Your task to perform on an android device: Go to wifi settings Image 0: 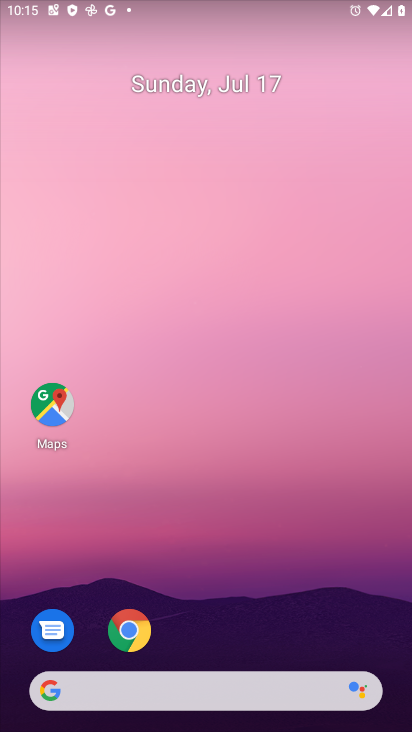
Step 0: click (226, 54)
Your task to perform on an android device: Go to wifi settings Image 1: 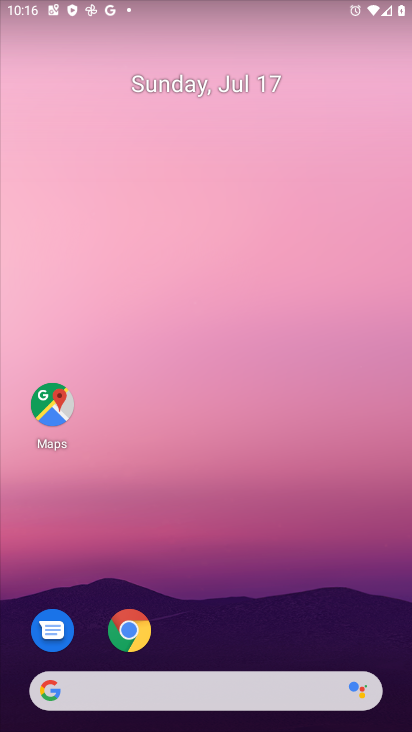
Step 1: drag from (204, 595) to (203, 104)
Your task to perform on an android device: Go to wifi settings Image 2: 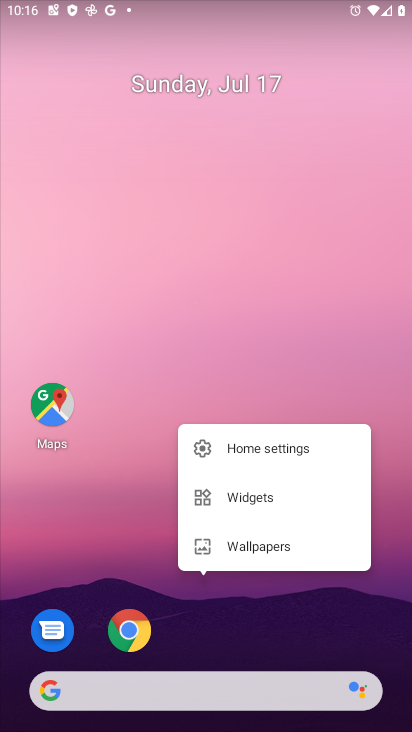
Step 2: click (163, 621)
Your task to perform on an android device: Go to wifi settings Image 3: 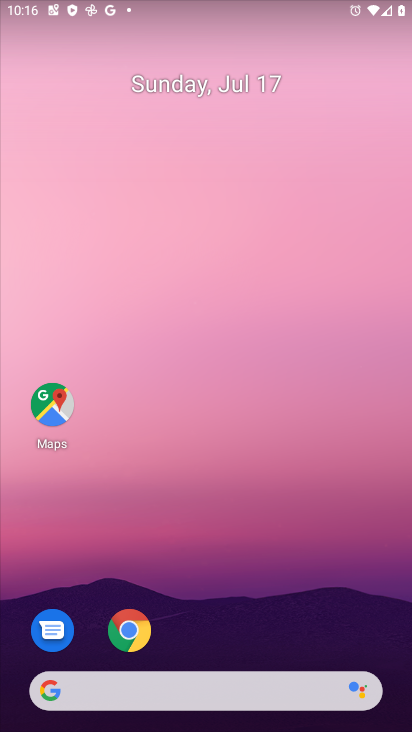
Step 3: drag from (160, 617) to (176, 176)
Your task to perform on an android device: Go to wifi settings Image 4: 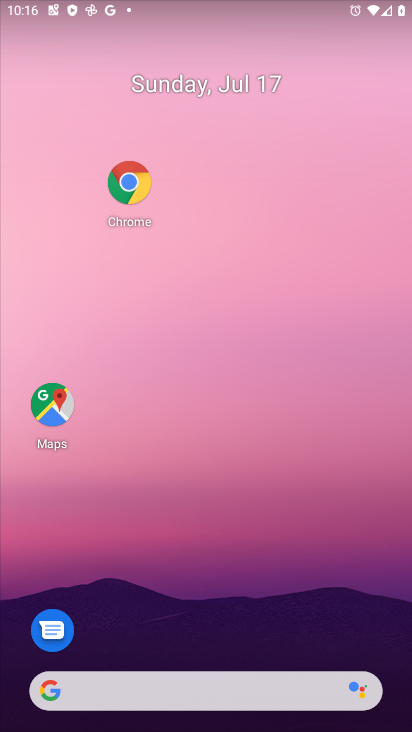
Step 4: click (190, 23)
Your task to perform on an android device: Go to wifi settings Image 5: 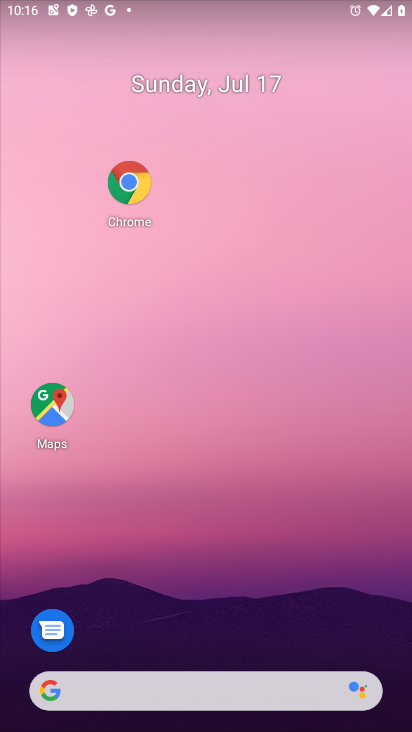
Step 5: click (233, 90)
Your task to perform on an android device: Go to wifi settings Image 6: 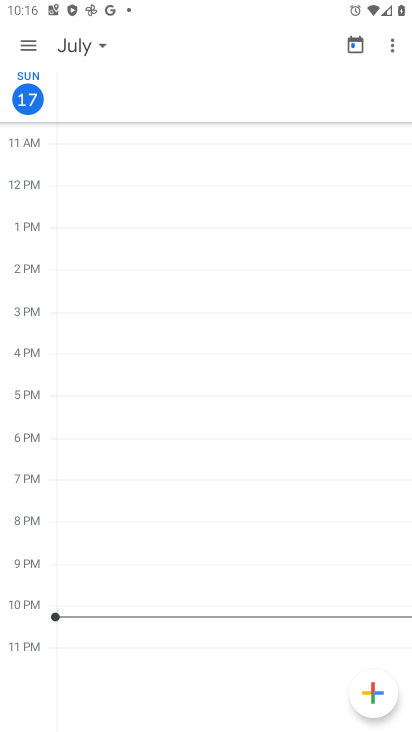
Step 6: press home button
Your task to perform on an android device: Go to wifi settings Image 7: 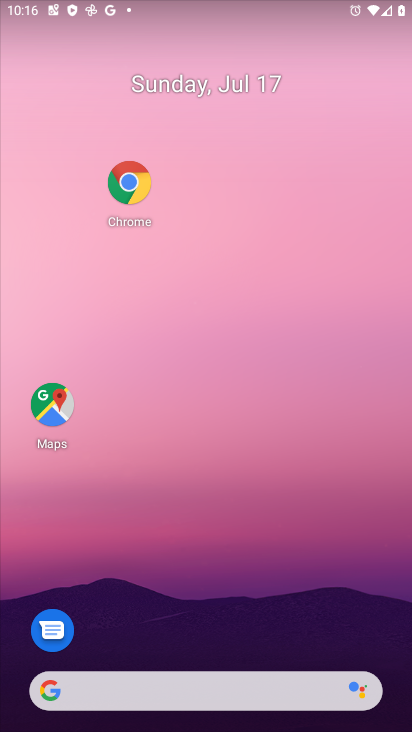
Step 7: drag from (180, 426) to (188, 178)
Your task to perform on an android device: Go to wifi settings Image 8: 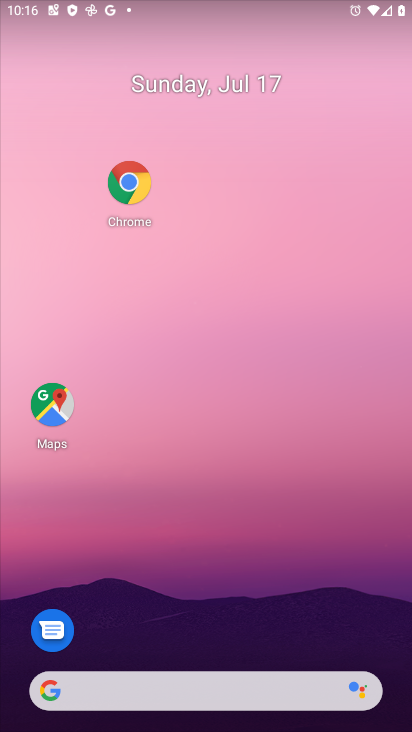
Step 8: drag from (173, 479) to (193, 271)
Your task to perform on an android device: Go to wifi settings Image 9: 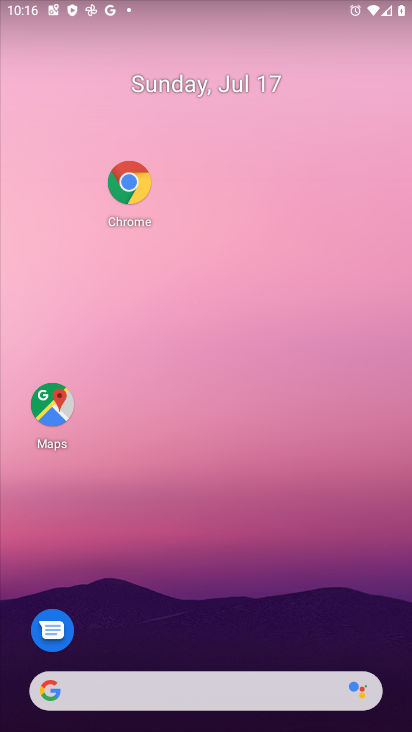
Step 9: drag from (186, 613) to (224, 127)
Your task to perform on an android device: Go to wifi settings Image 10: 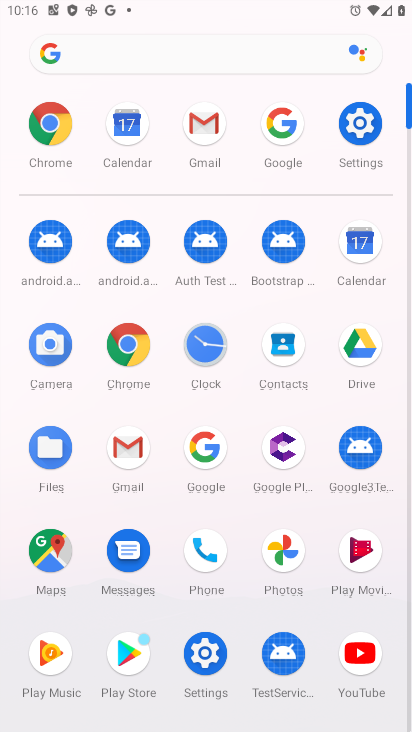
Step 10: click (362, 128)
Your task to perform on an android device: Go to wifi settings Image 11: 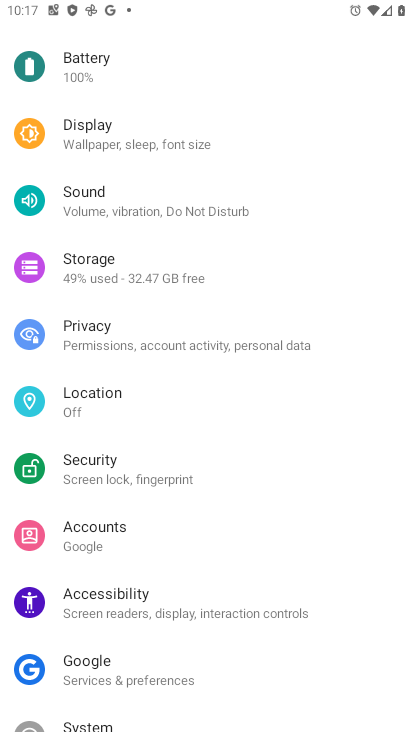
Step 11: drag from (181, 310) to (150, 728)
Your task to perform on an android device: Go to wifi settings Image 12: 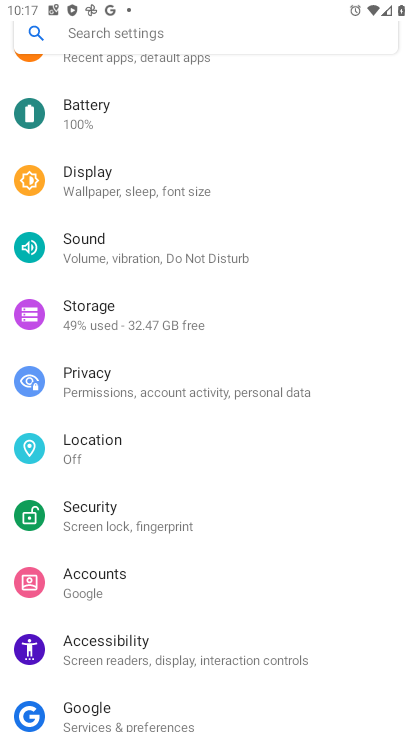
Step 12: drag from (198, 233) to (154, 452)
Your task to perform on an android device: Go to wifi settings Image 13: 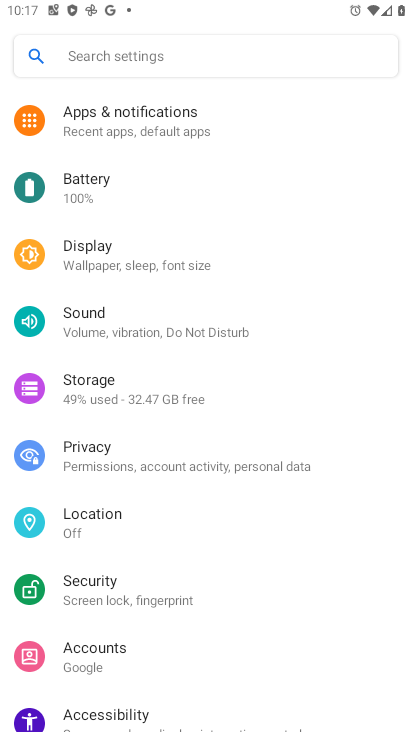
Step 13: drag from (156, 257) to (152, 575)
Your task to perform on an android device: Go to wifi settings Image 14: 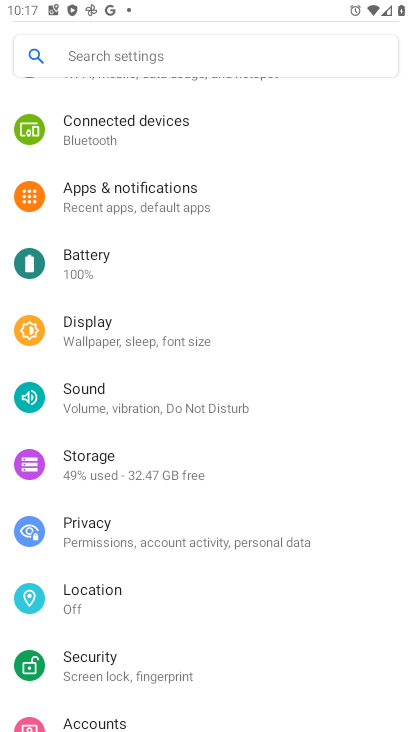
Step 14: drag from (239, 151) to (215, 308)
Your task to perform on an android device: Go to wifi settings Image 15: 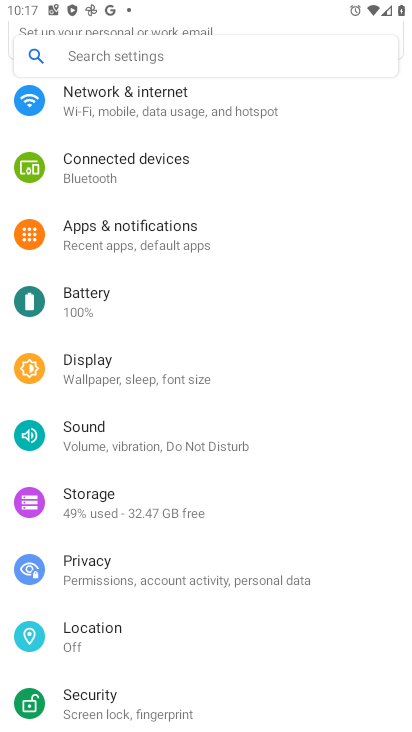
Step 15: click (154, 107)
Your task to perform on an android device: Go to wifi settings Image 16: 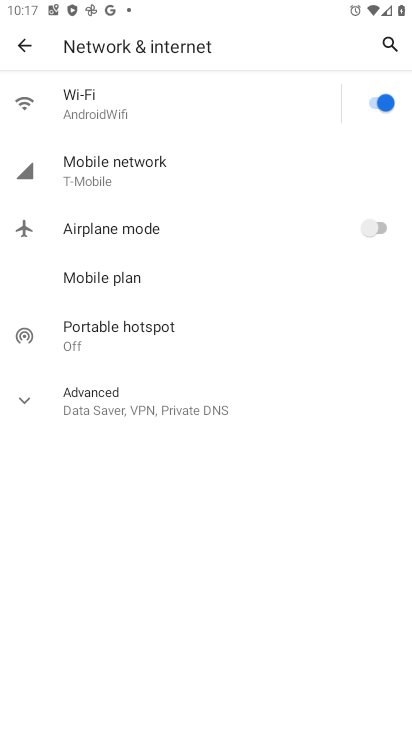
Step 16: task complete